Your task to perform on an android device: change the clock display to digital Image 0: 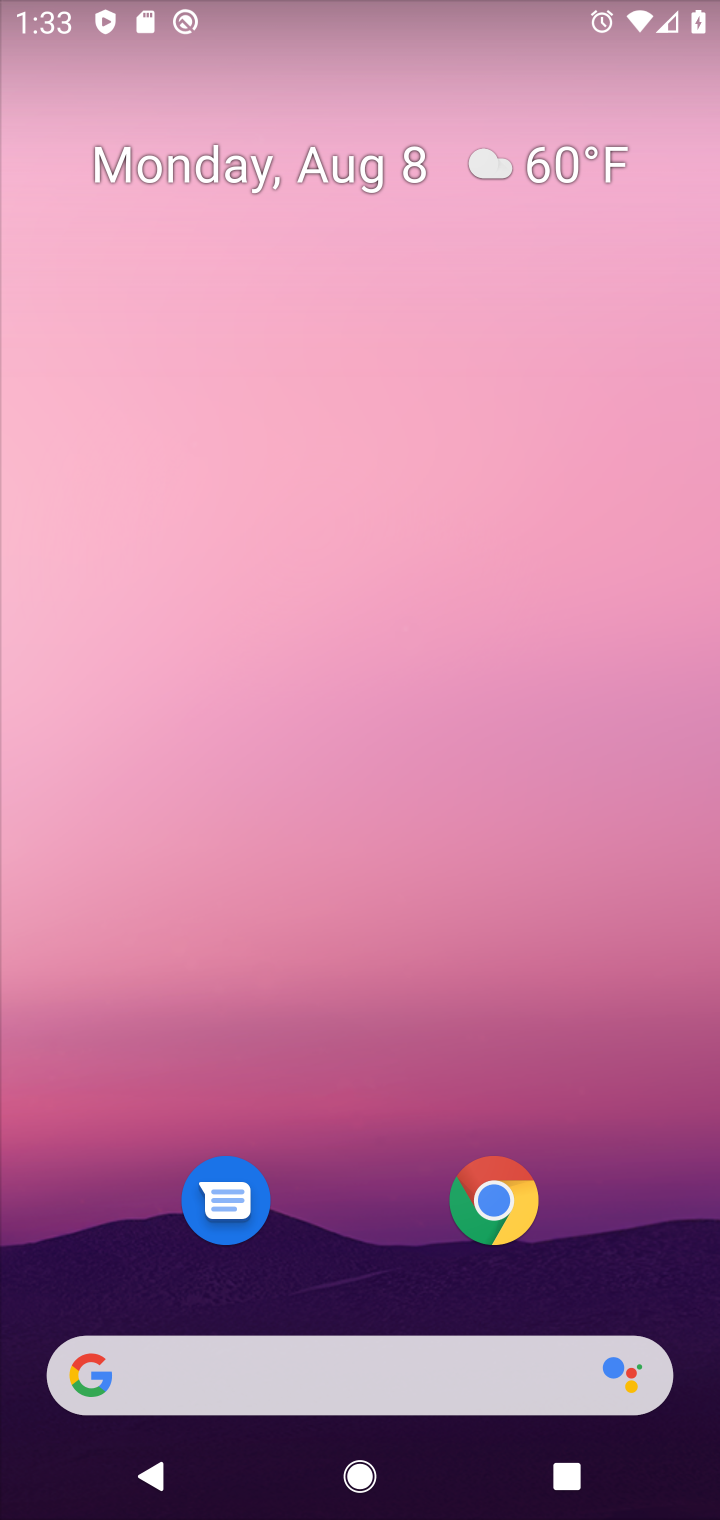
Step 0: press home button
Your task to perform on an android device: change the clock display to digital Image 1: 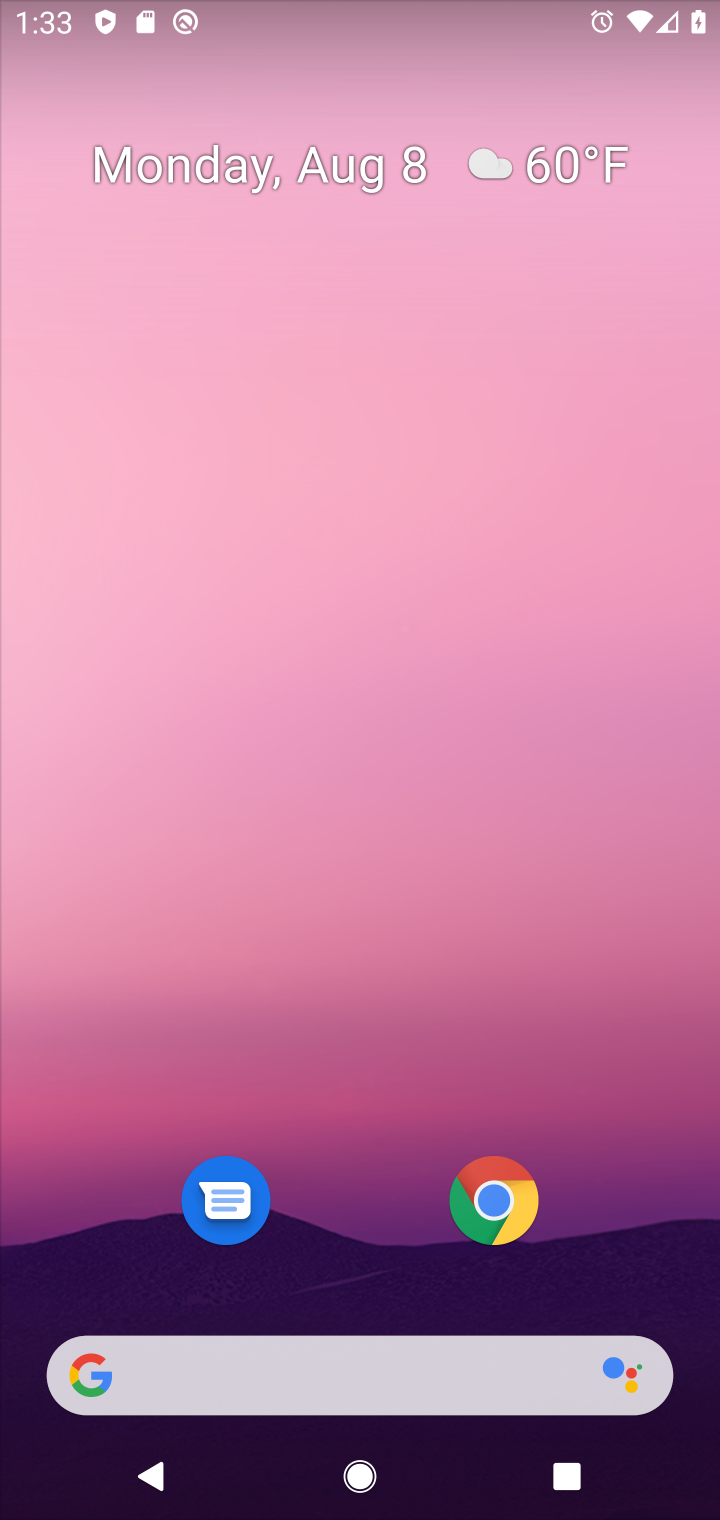
Step 1: press home button
Your task to perform on an android device: change the clock display to digital Image 2: 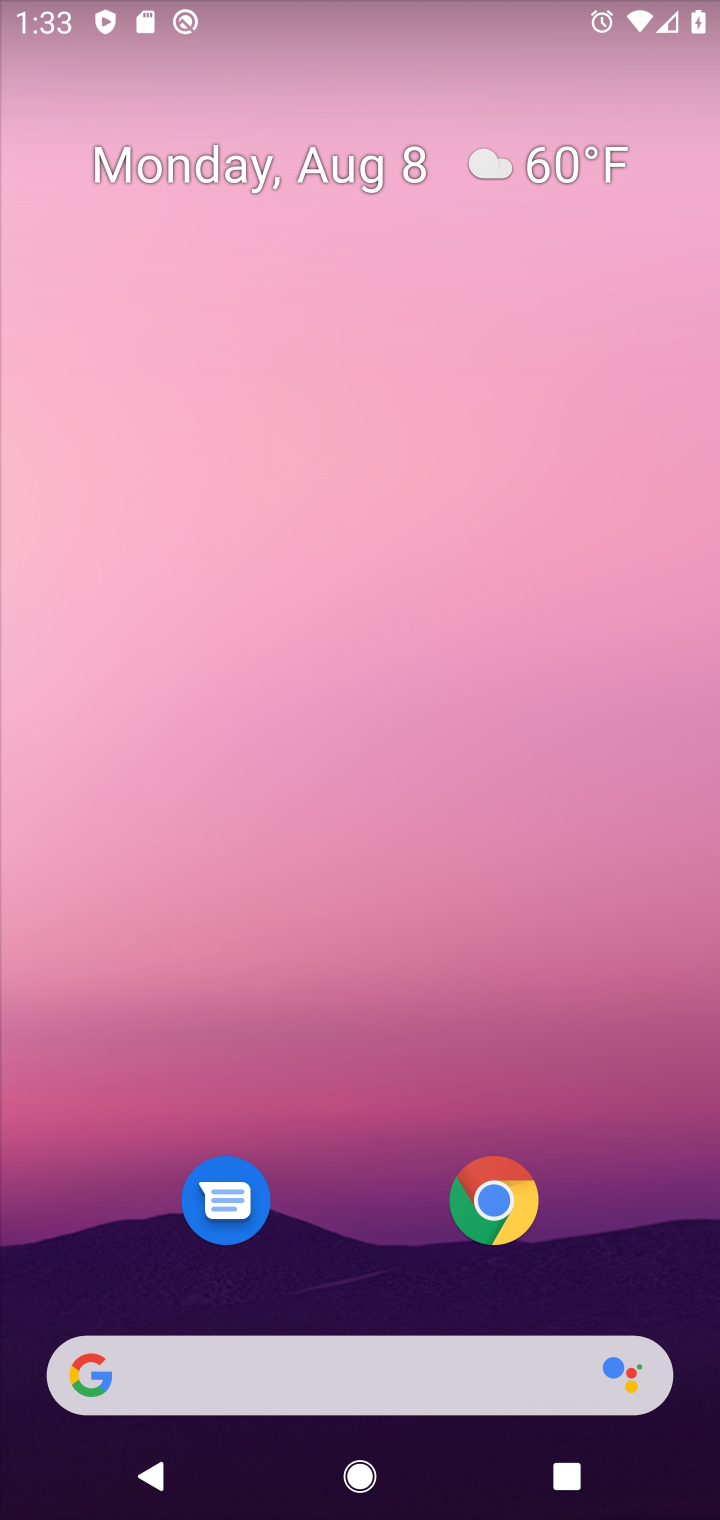
Step 2: drag from (408, 1218) to (486, 406)
Your task to perform on an android device: change the clock display to digital Image 3: 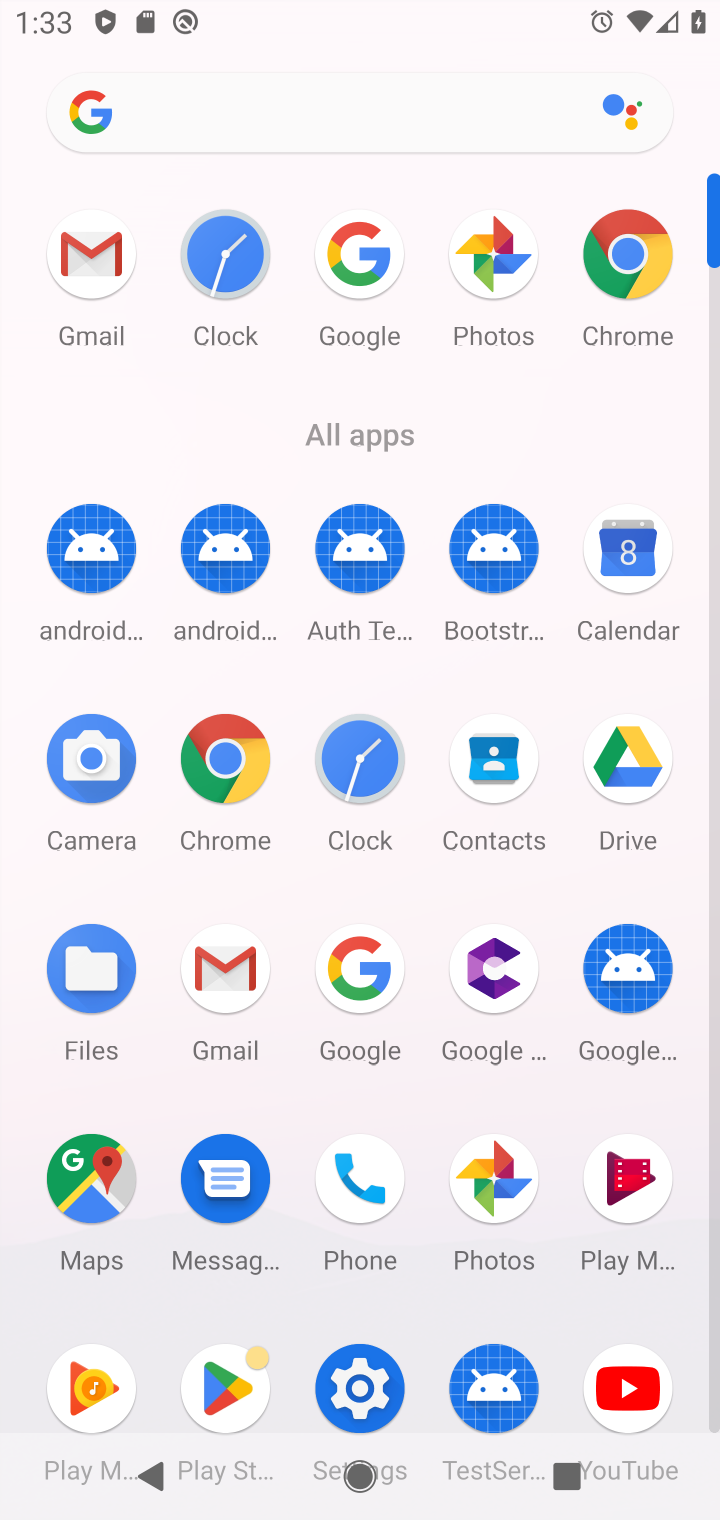
Step 3: click (366, 759)
Your task to perform on an android device: change the clock display to digital Image 4: 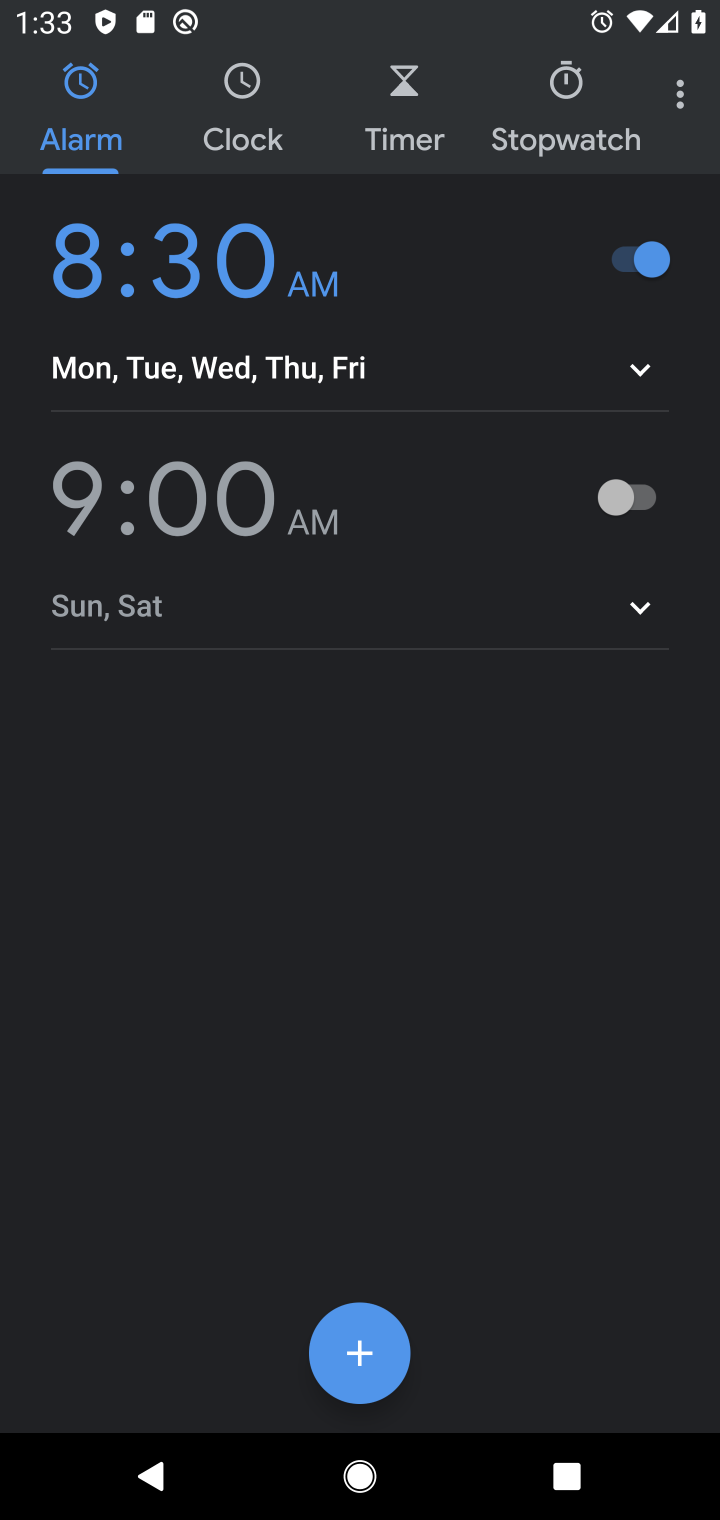
Step 4: click (685, 100)
Your task to perform on an android device: change the clock display to digital Image 5: 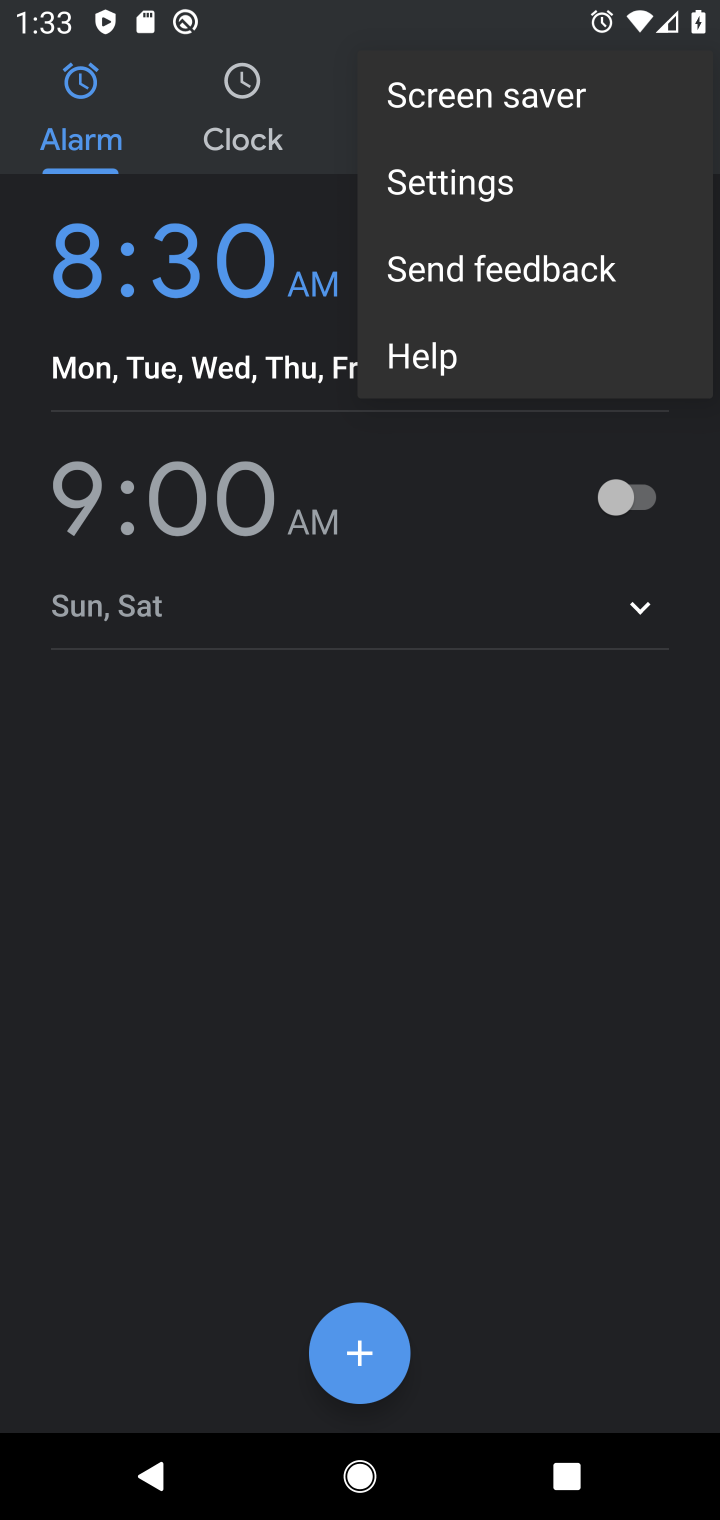
Step 5: click (533, 180)
Your task to perform on an android device: change the clock display to digital Image 6: 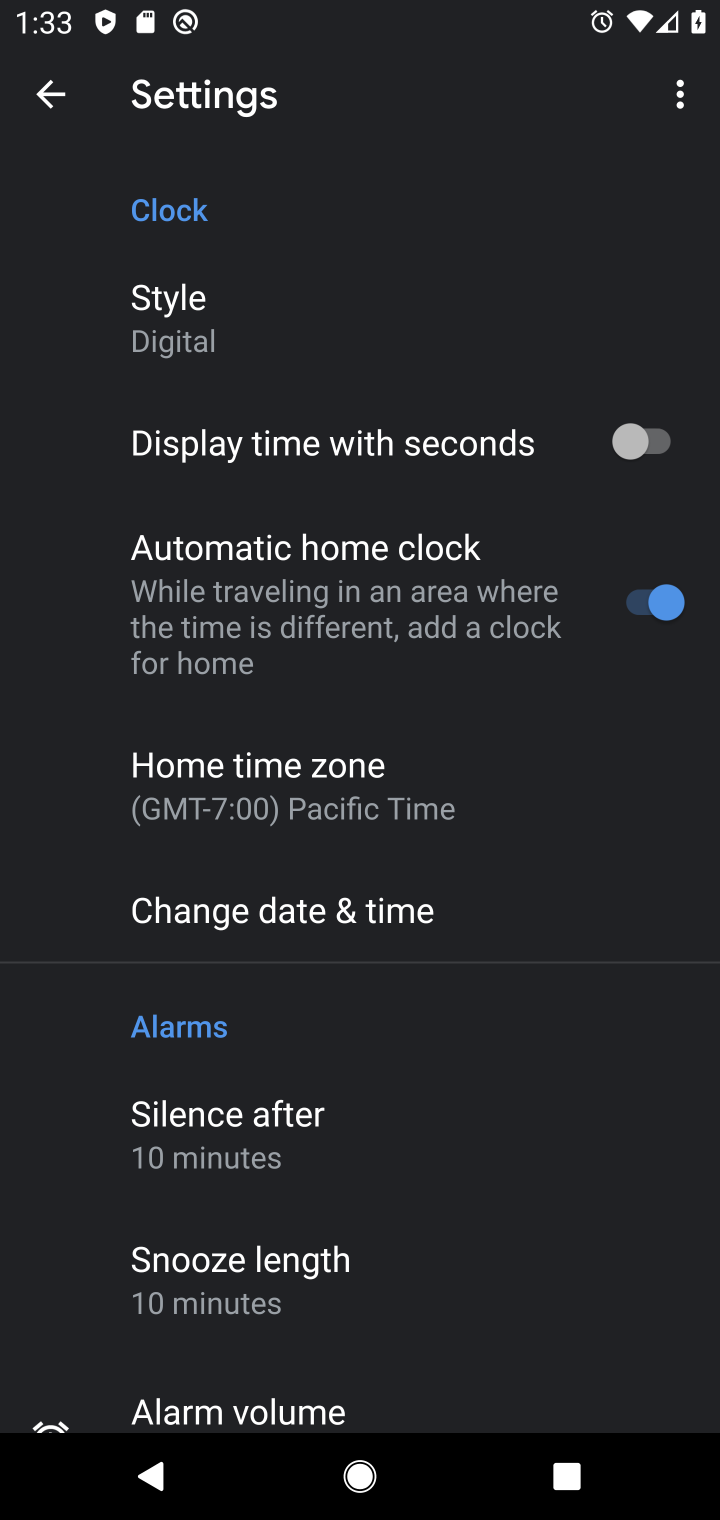
Step 6: task complete